Your task to perform on an android device: install app "Lyft - Rideshare, Bikes, Scooters & Transit" Image 0: 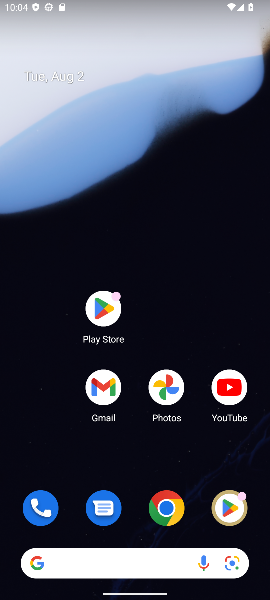
Step 0: click (107, 300)
Your task to perform on an android device: install app "Lyft - Rideshare, Bikes, Scooters & Transit" Image 1: 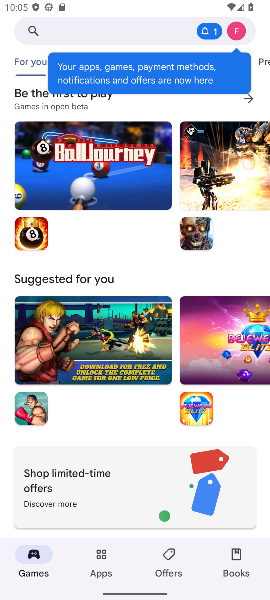
Step 1: click (84, 31)
Your task to perform on an android device: install app "Lyft - Rideshare, Bikes, Scooters & Transit" Image 2: 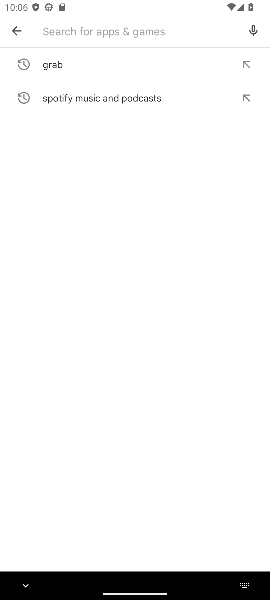
Step 2: type "Lyft - Rideshare, Bikes, Scooters & Transit"
Your task to perform on an android device: install app "Lyft - Rideshare, Bikes, Scooters & Transit" Image 3: 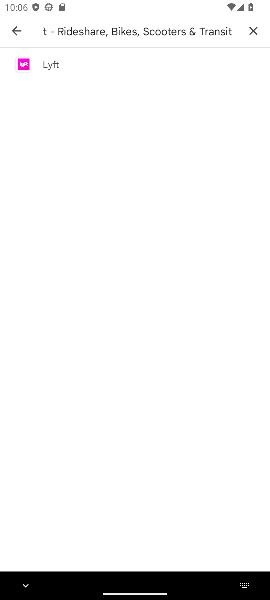
Step 3: click (47, 59)
Your task to perform on an android device: install app "Lyft - Rideshare, Bikes, Scooters & Transit" Image 4: 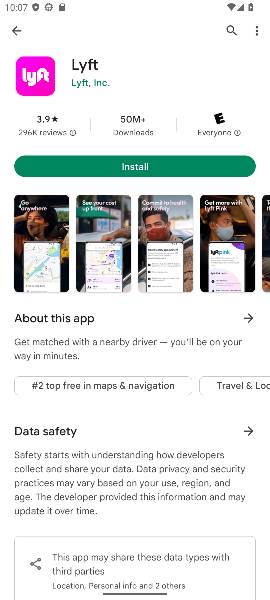
Step 4: click (143, 162)
Your task to perform on an android device: install app "Lyft - Rideshare, Bikes, Scooters & Transit" Image 5: 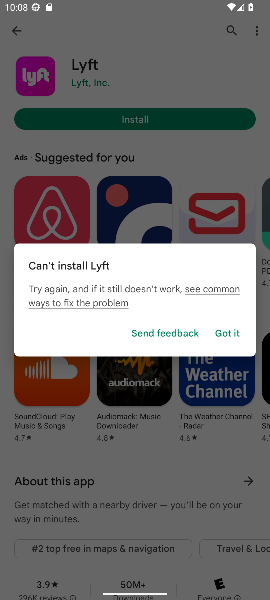
Step 5: click (235, 332)
Your task to perform on an android device: install app "Lyft - Rideshare, Bikes, Scooters & Transit" Image 6: 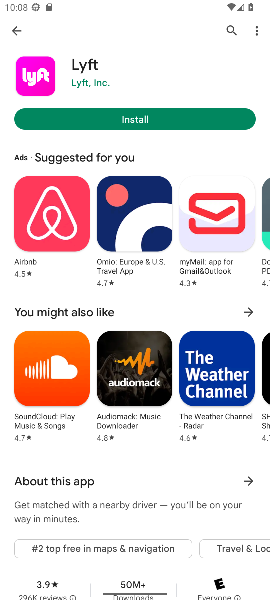
Step 6: task complete